Your task to perform on an android device: Open settings on Google Maps Image 0: 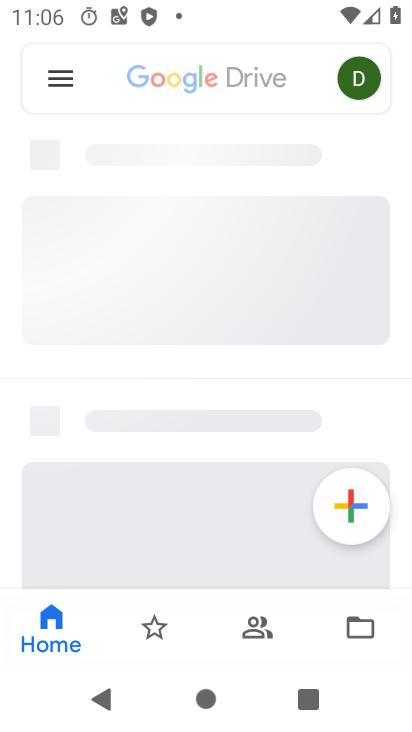
Step 0: drag from (215, 601) to (212, 417)
Your task to perform on an android device: Open settings on Google Maps Image 1: 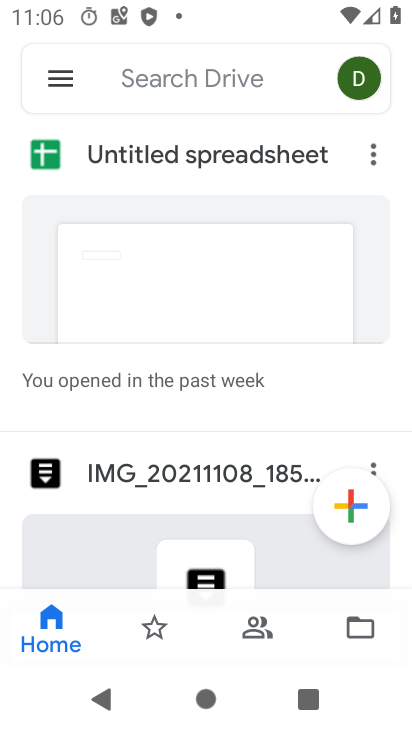
Step 1: press home button
Your task to perform on an android device: Open settings on Google Maps Image 2: 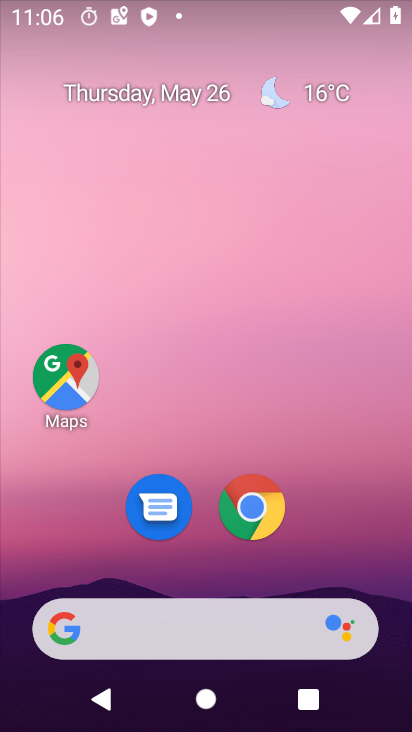
Step 2: click (52, 382)
Your task to perform on an android device: Open settings on Google Maps Image 3: 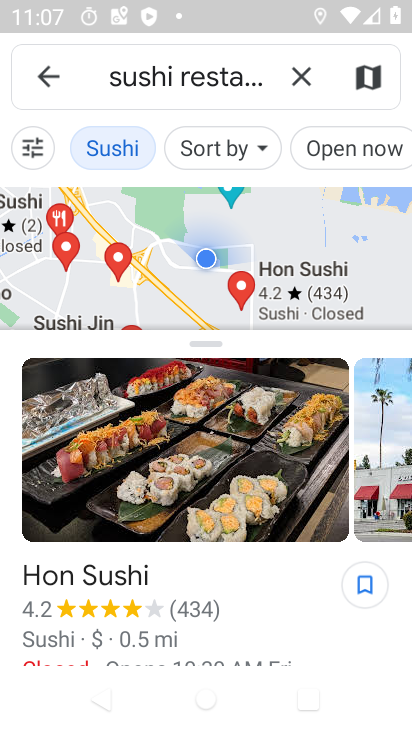
Step 3: click (304, 85)
Your task to perform on an android device: Open settings on Google Maps Image 4: 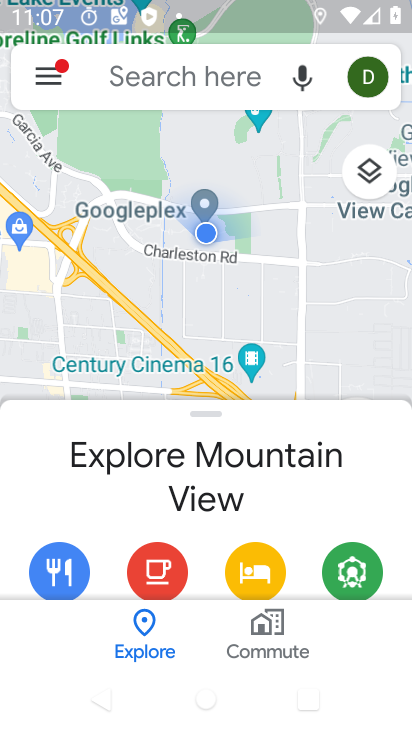
Step 4: click (185, 84)
Your task to perform on an android device: Open settings on Google Maps Image 5: 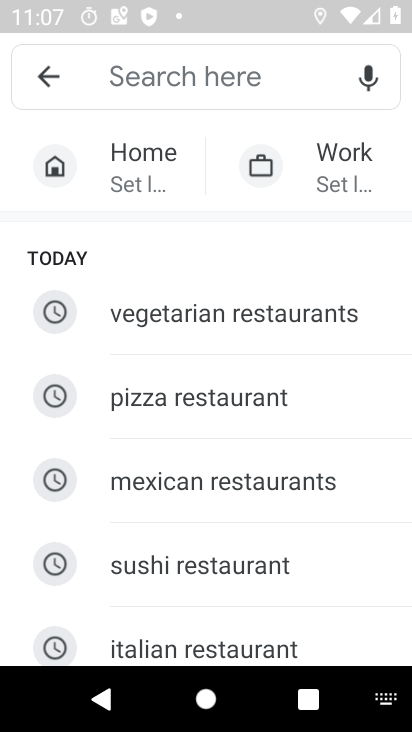
Step 5: task complete